Your task to perform on an android device: Open my contact list Image 0: 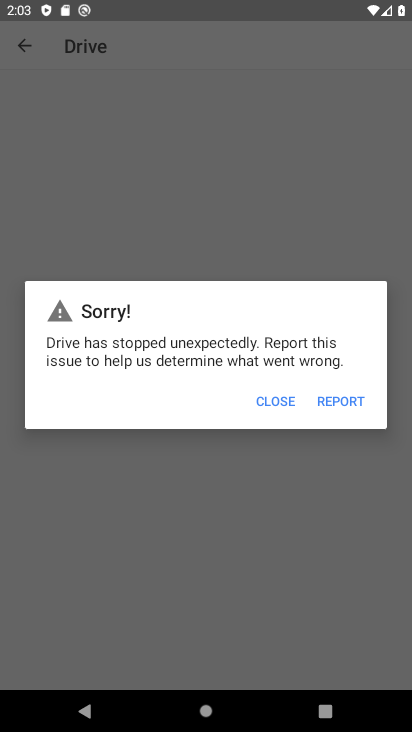
Step 0: press home button
Your task to perform on an android device: Open my contact list Image 1: 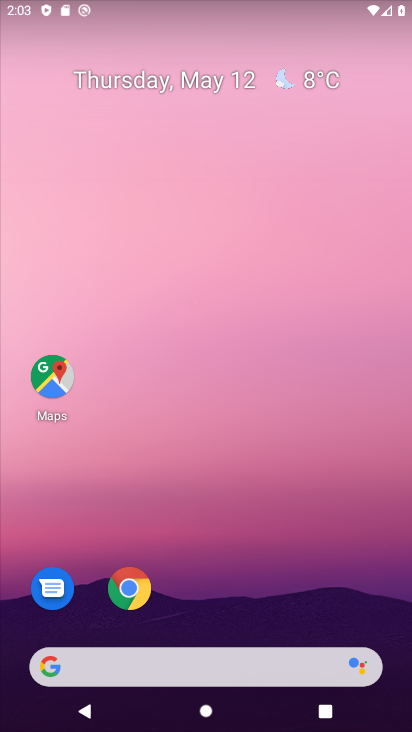
Step 1: drag from (296, 590) to (265, 126)
Your task to perform on an android device: Open my contact list Image 2: 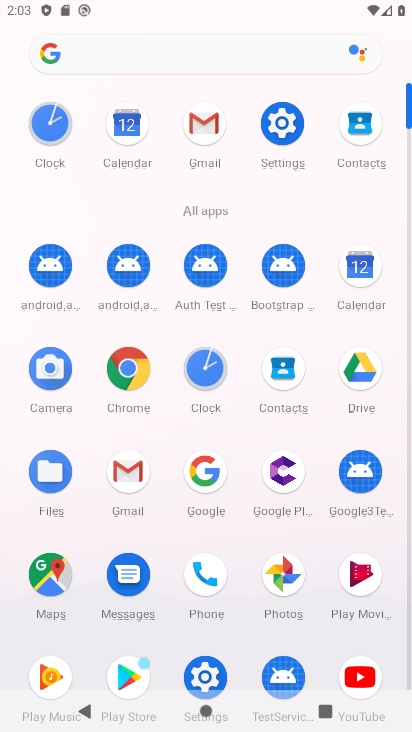
Step 2: click (352, 154)
Your task to perform on an android device: Open my contact list Image 3: 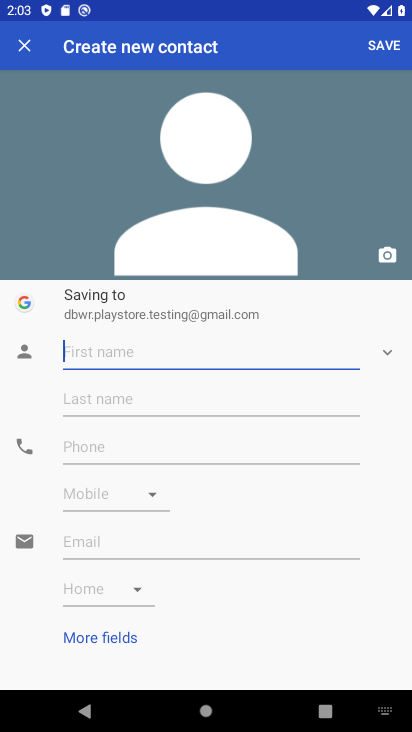
Step 3: click (19, 49)
Your task to perform on an android device: Open my contact list Image 4: 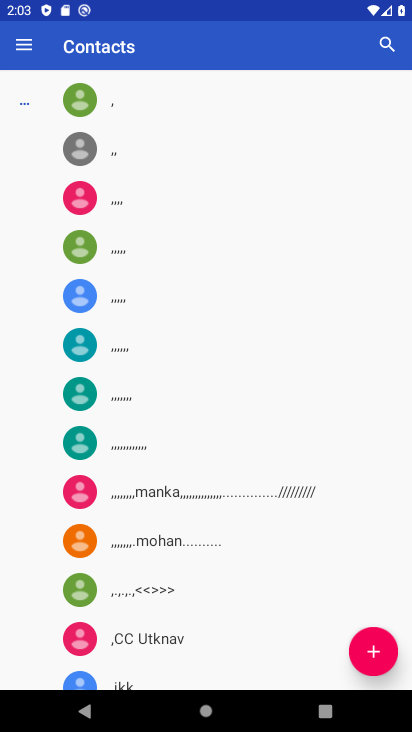
Step 4: task complete